Your task to perform on an android device: turn off wifi Image 0: 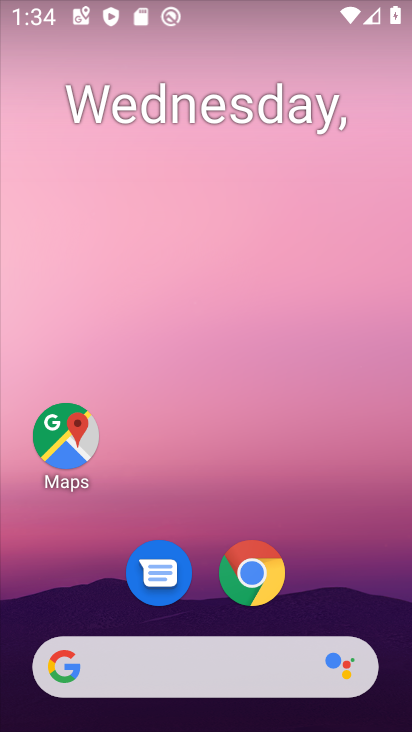
Step 0: click (392, 441)
Your task to perform on an android device: turn off wifi Image 1: 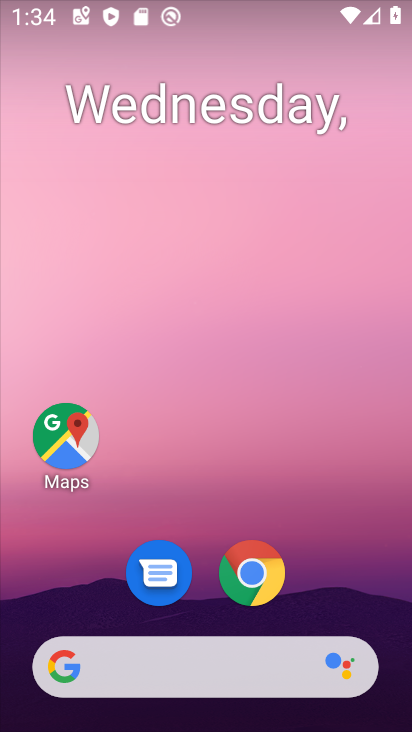
Step 1: drag from (191, 523) to (192, 138)
Your task to perform on an android device: turn off wifi Image 2: 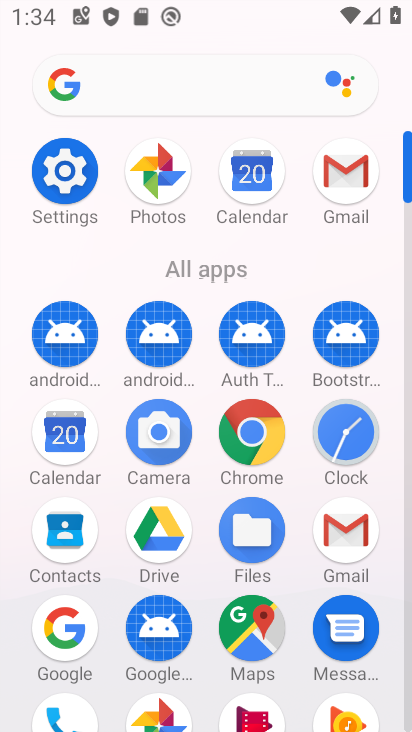
Step 2: click (67, 170)
Your task to perform on an android device: turn off wifi Image 3: 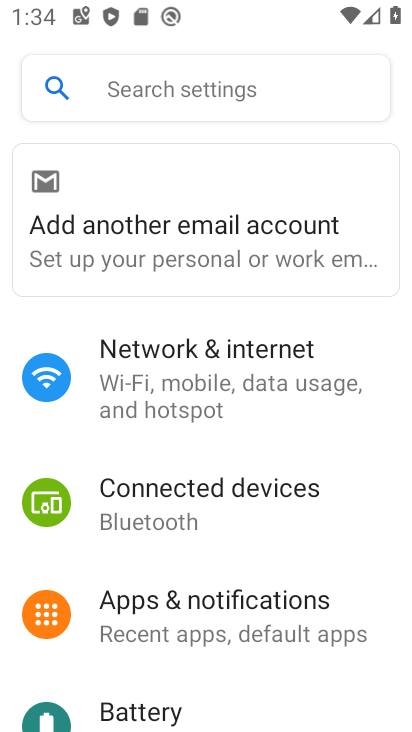
Step 3: click (173, 383)
Your task to perform on an android device: turn off wifi Image 4: 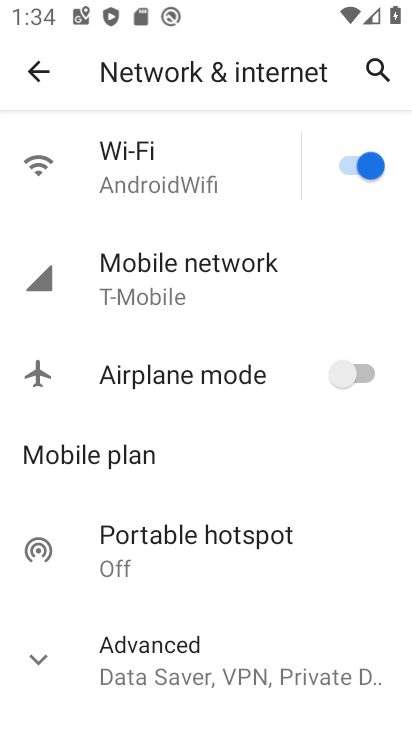
Step 4: click (369, 157)
Your task to perform on an android device: turn off wifi Image 5: 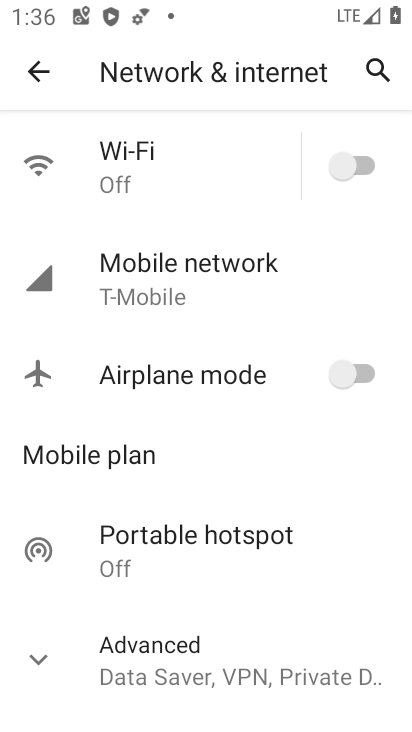
Step 5: task complete